Your task to perform on an android device: change the clock style Image 0: 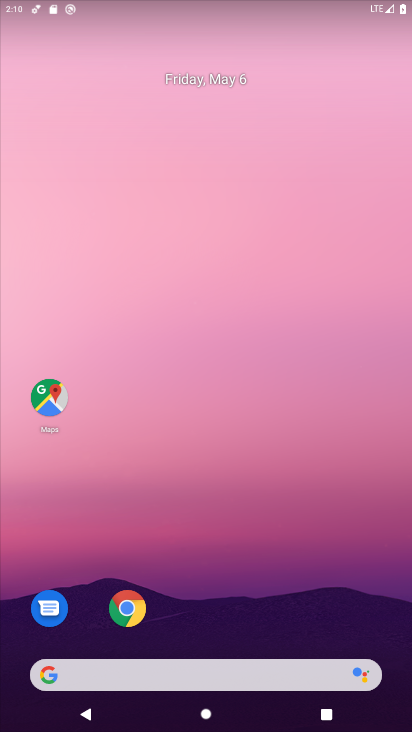
Step 0: drag from (207, 631) to (286, 56)
Your task to perform on an android device: change the clock style Image 1: 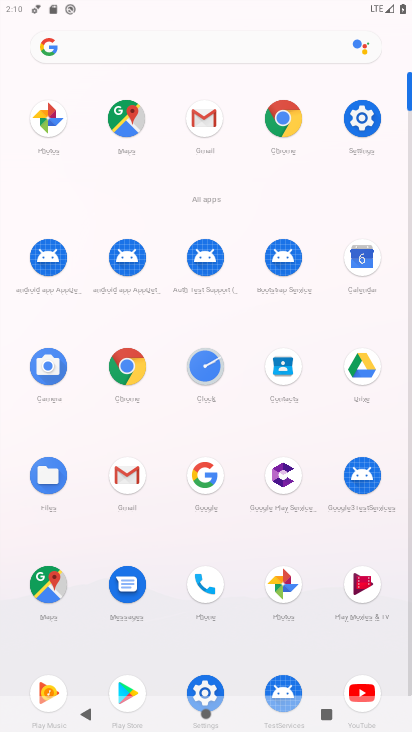
Step 1: click (199, 382)
Your task to perform on an android device: change the clock style Image 2: 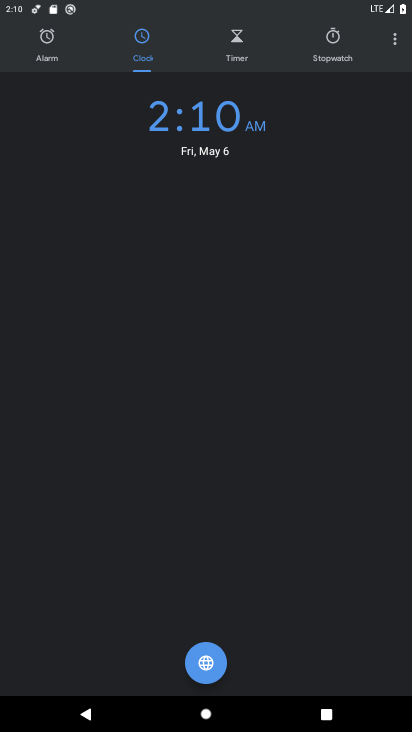
Step 2: click (395, 49)
Your task to perform on an android device: change the clock style Image 3: 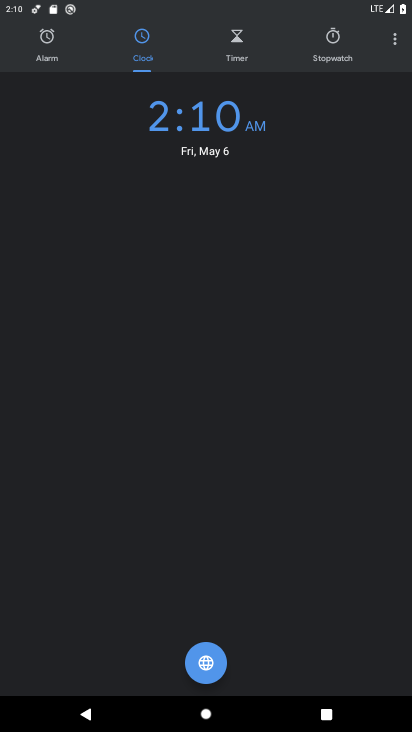
Step 3: click (393, 34)
Your task to perform on an android device: change the clock style Image 4: 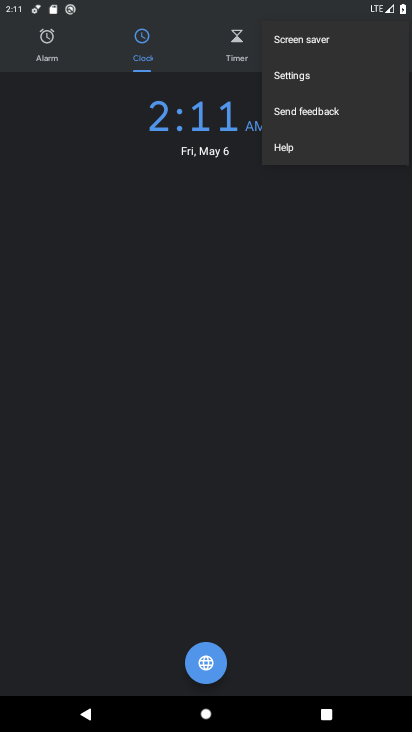
Step 4: click (315, 71)
Your task to perform on an android device: change the clock style Image 5: 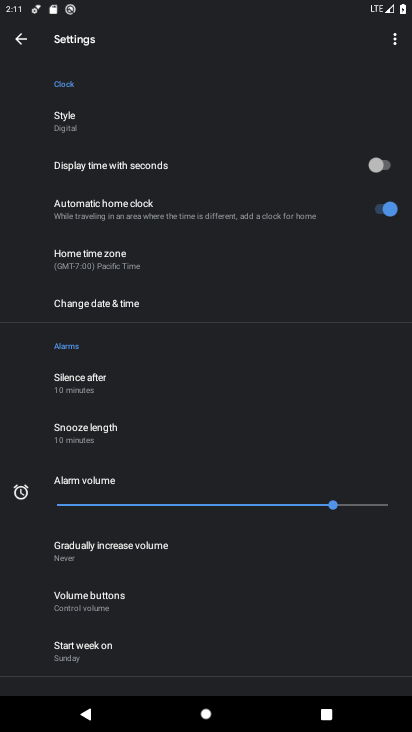
Step 5: click (66, 127)
Your task to perform on an android device: change the clock style Image 6: 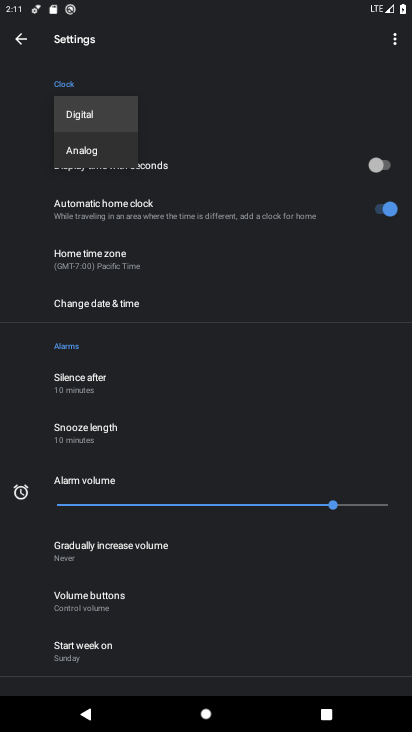
Step 6: click (106, 157)
Your task to perform on an android device: change the clock style Image 7: 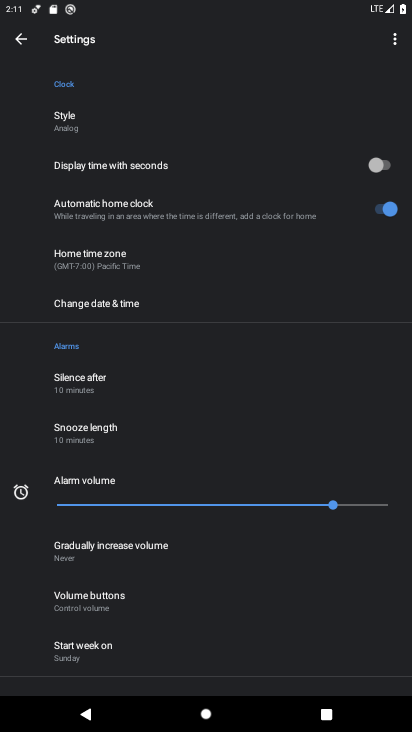
Step 7: task complete